Your task to perform on an android device: delete browsing data in the chrome app Image 0: 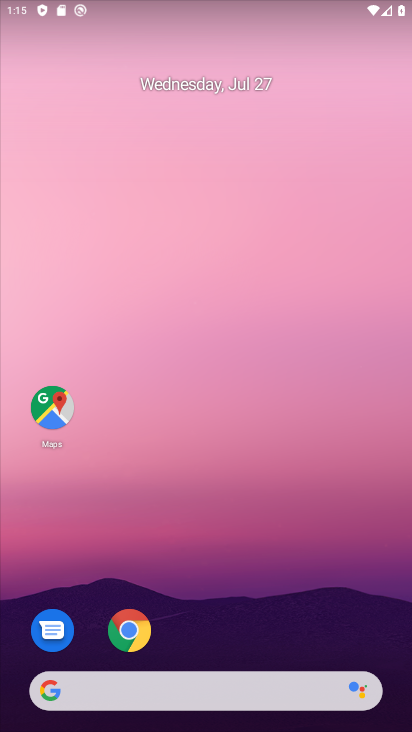
Step 0: click (126, 641)
Your task to perform on an android device: delete browsing data in the chrome app Image 1: 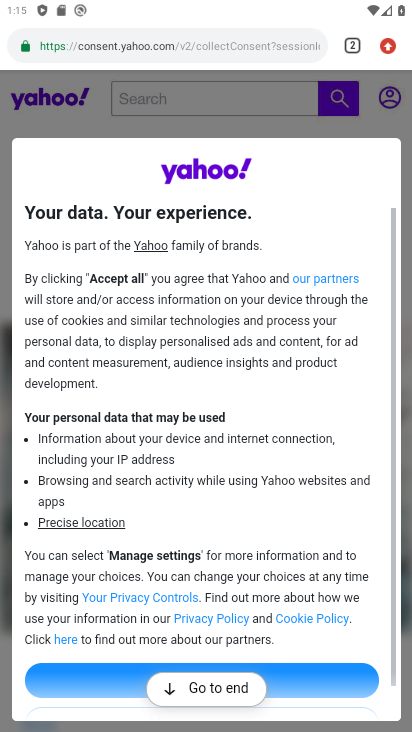
Step 1: click (351, 45)
Your task to perform on an android device: delete browsing data in the chrome app Image 2: 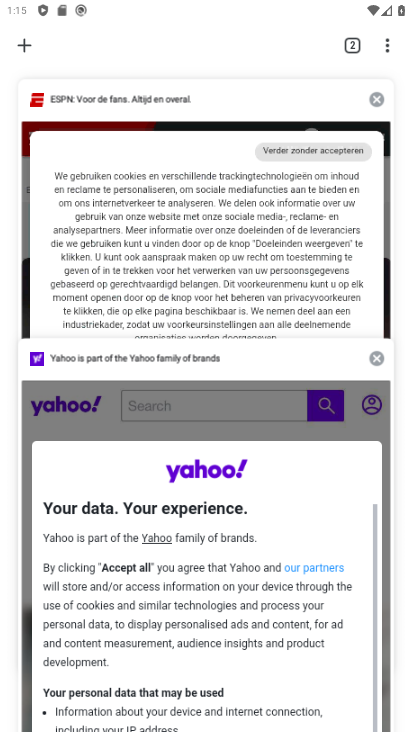
Step 2: click (390, 52)
Your task to perform on an android device: delete browsing data in the chrome app Image 3: 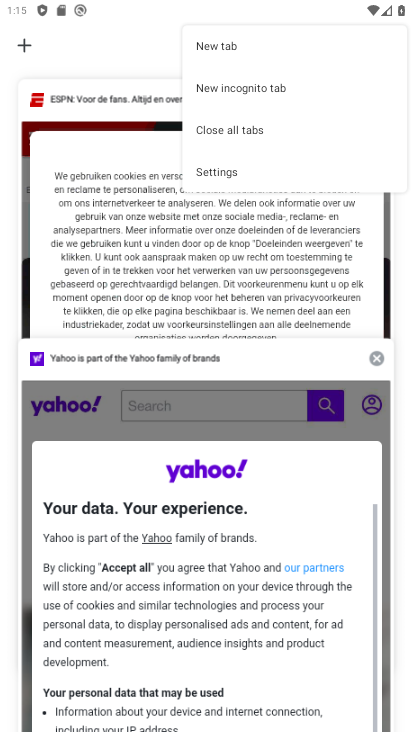
Step 3: click (281, 179)
Your task to perform on an android device: delete browsing data in the chrome app Image 4: 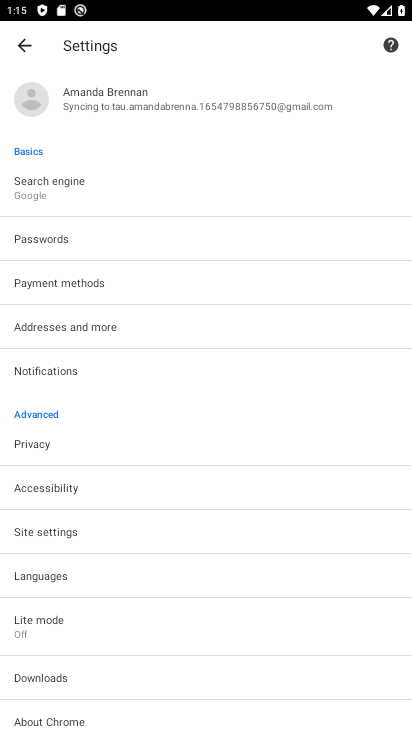
Step 4: click (29, 455)
Your task to perform on an android device: delete browsing data in the chrome app Image 5: 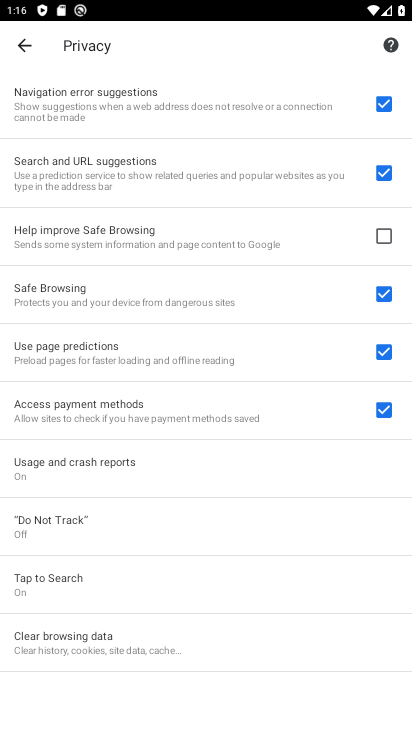
Step 5: drag from (267, 647) to (326, 403)
Your task to perform on an android device: delete browsing data in the chrome app Image 6: 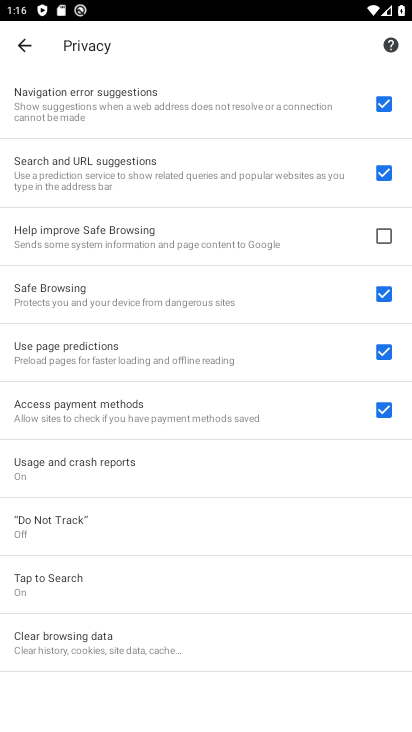
Step 6: click (143, 648)
Your task to perform on an android device: delete browsing data in the chrome app Image 7: 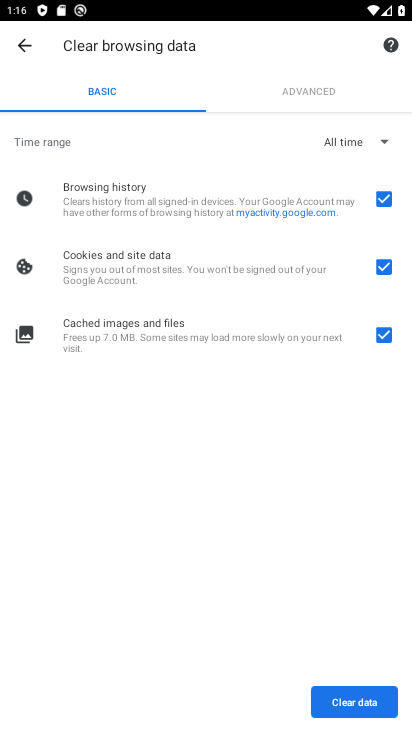
Step 7: click (336, 708)
Your task to perform on an android device: delete browsing data in the chrome app Image 8: 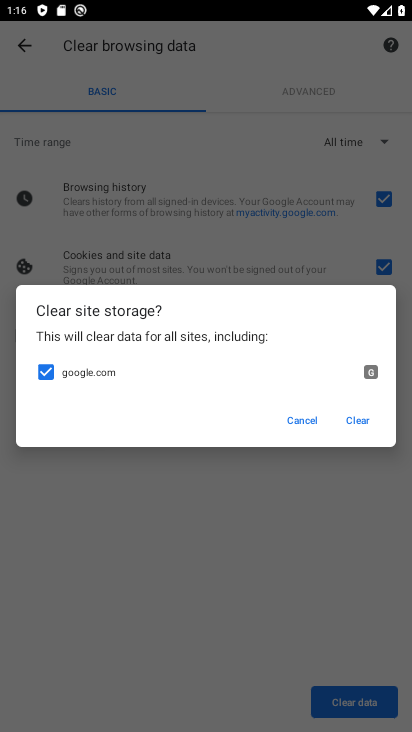
Step 8: click (359, 422)
Your task to perform on an android device: delete browsing data in the chrome app Image 9: 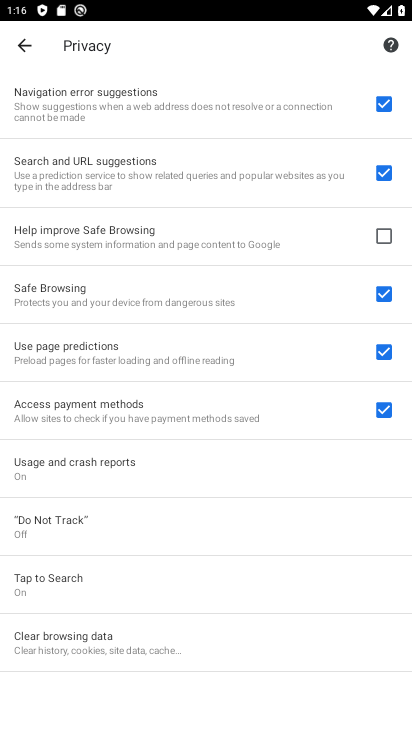
Step 9: task complete